Your task to perform on an android device: Is it going to rain this weekend? Image 0: 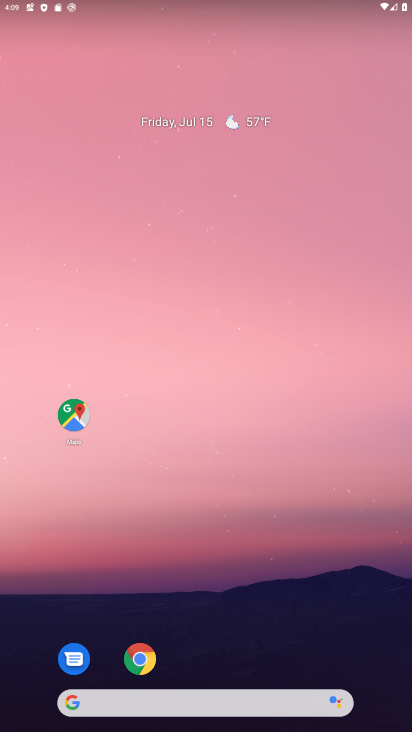
Step 0: drag from (337, 657) to (203, 11)
Your task to perform on an android device: Is it going to rain this weekend? Image 1: 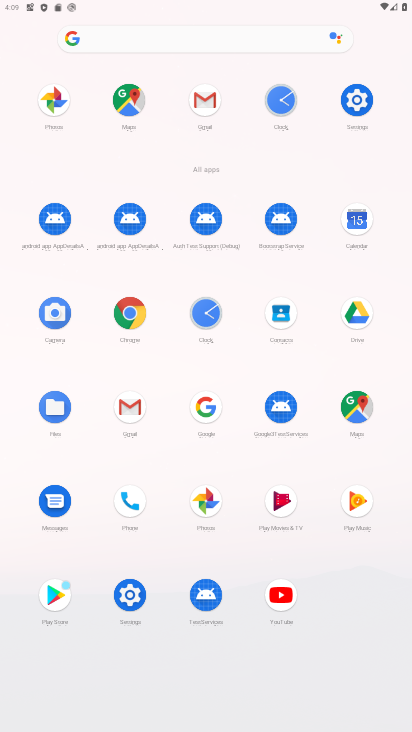
Step 1: click (136, 325)
Your task to perform on an android device: Is it going to rain this weekend? Image 2: 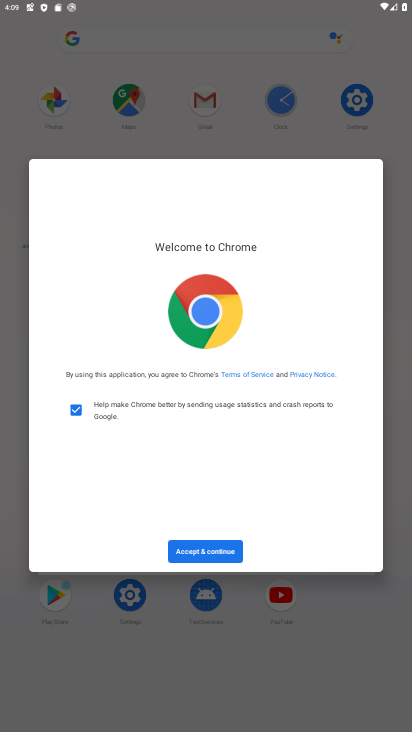
Step 2: click (201, 559)
Your task to perform on an android device: Is it going to rain this weekend? Image 3: 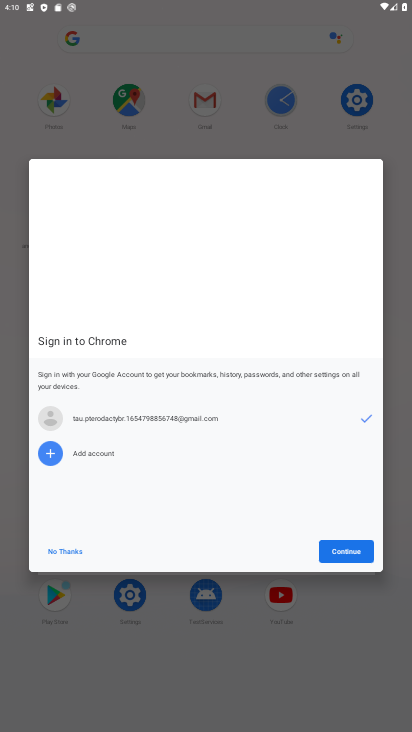
Step 3: click (325, 560)
Your task to perform on an android device: Is it going to rain this weekend? Image 4: 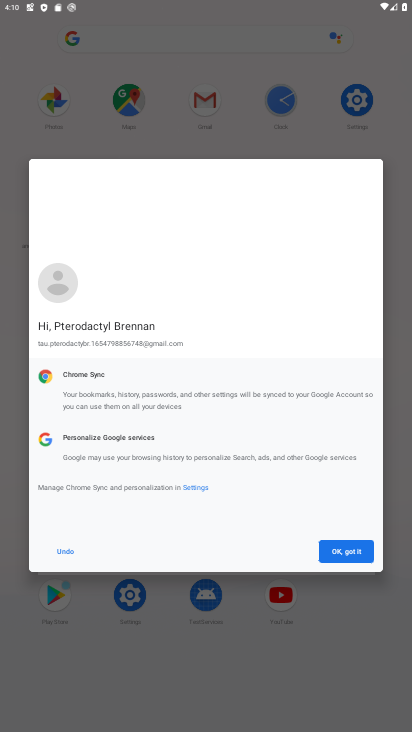
Step 4: click (341, 552)
Your task to perform on an android device: Is it going to rain this weekend? Image 5: 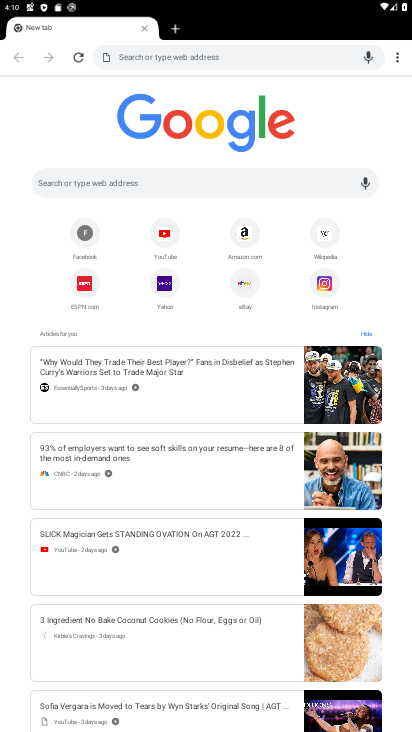
Step 5: click (196, 176)
Your task to perform on an android device: Is it going to rain this weekend? Image 6: 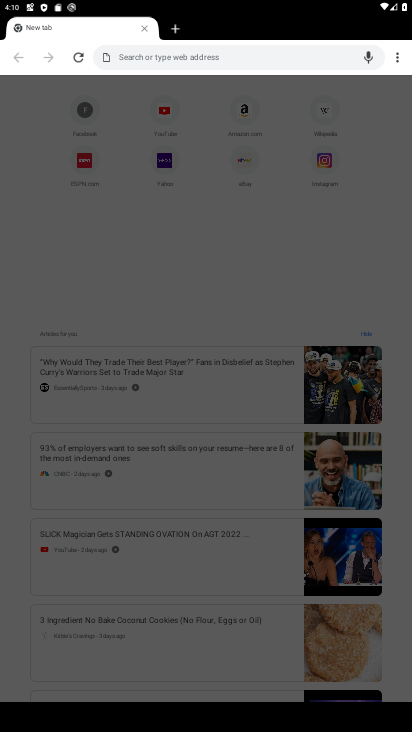
Step 6: type "Is it going to rain this weekend?"
Your task to perform on an android device: Is it going to rain this weekend? Image 7: 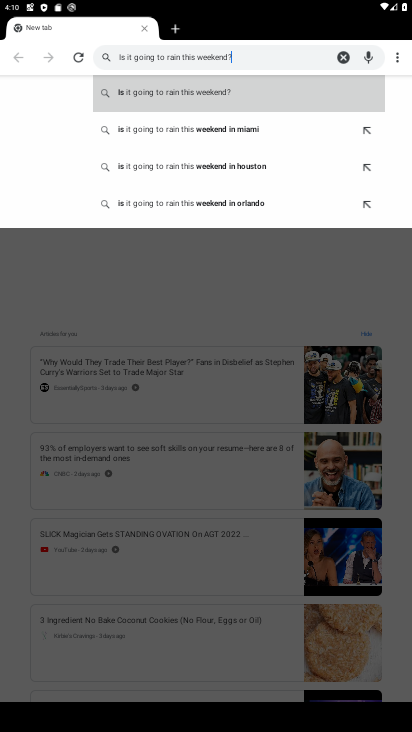
Step 7: click (195, 97)
Your task to perform on an android device: Is it going to rain this weekend? Image 8: 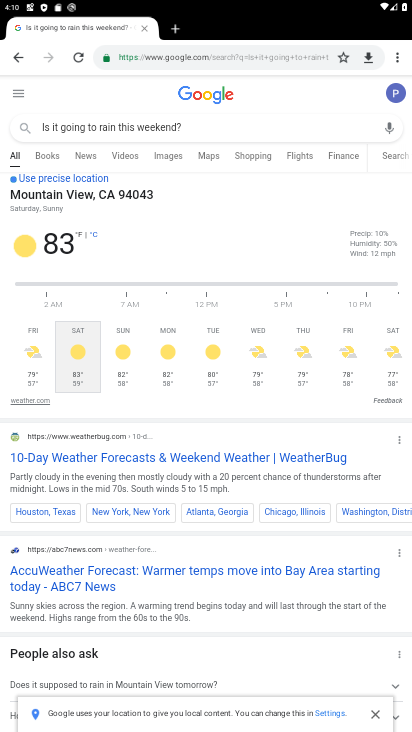
Step 8: task complete